Your task to perform on an android device: When is my next meeting? Image 0: 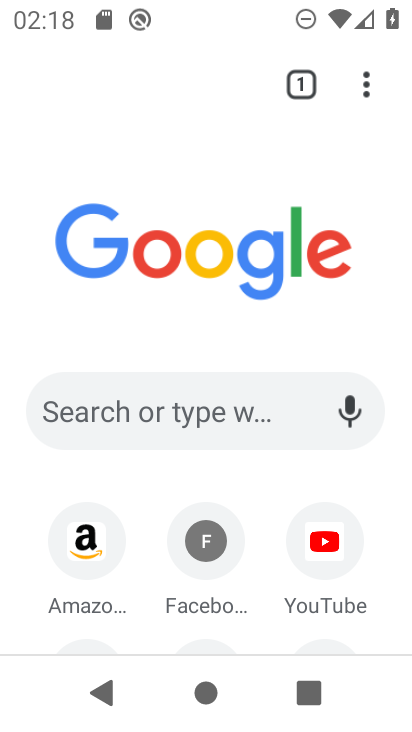
Step 0: press home button
Your task to perform on an android device: When is my next meeting? Image 1: 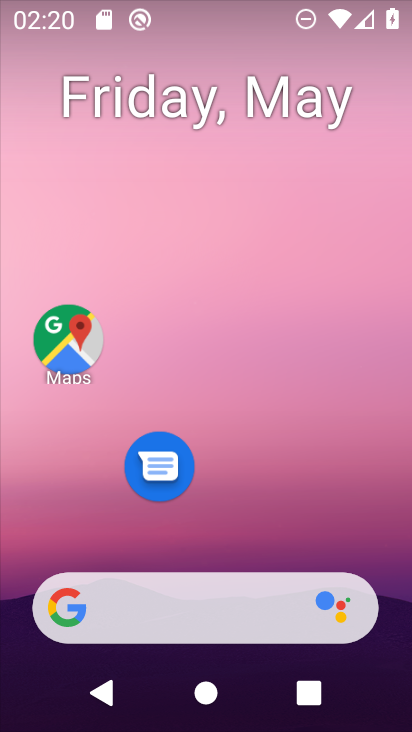
Step 1: drag from (327, 545) to (328, 4)
Your task to perform on an android device: When is my next meeting? Image 2: 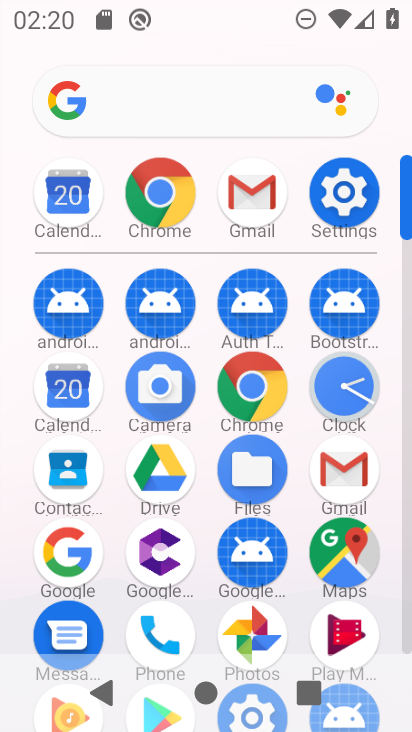
Step 2: click (65, 382)
Your task to perform on an android device: When is my next meeting? Image 3: 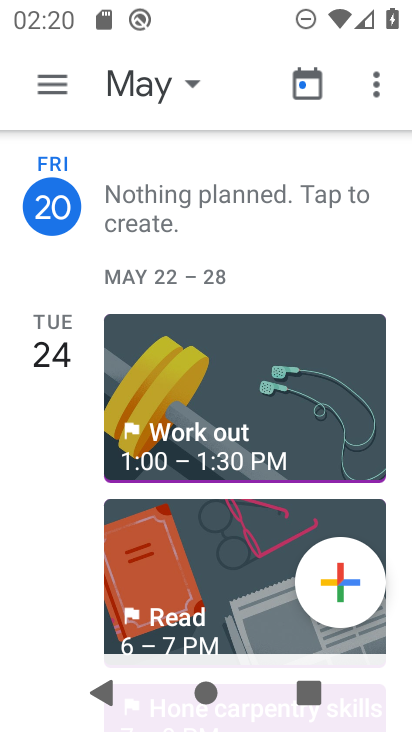
Step 3: task complete